Your task to perform on an android device: read, delete, or share a saved page in the chrome app Image 0: 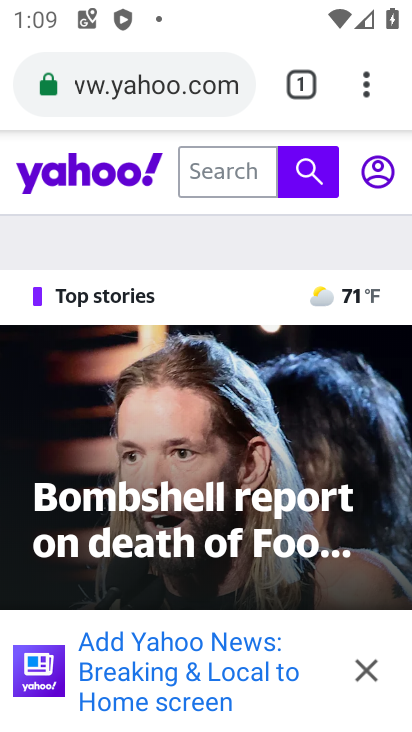
Step 0: click (380, 96)
Your task to perform on an android device: read, delete, or share a saved page in the chrome app Image 1: 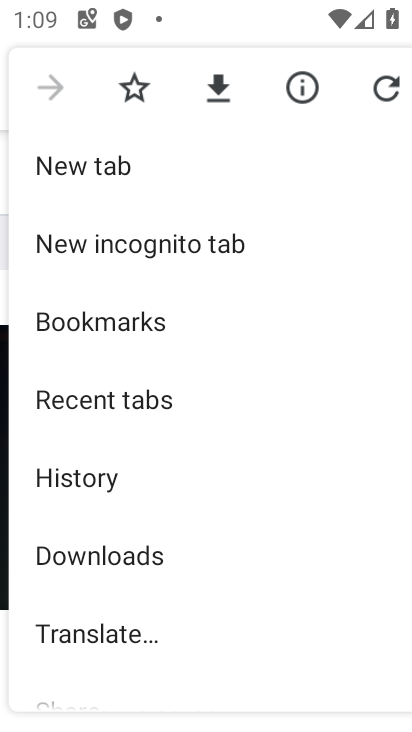
Step 1: click (141, 556)
Your task to perform on an android device: read, delete, or share a saved page in the chrome app Image 2: 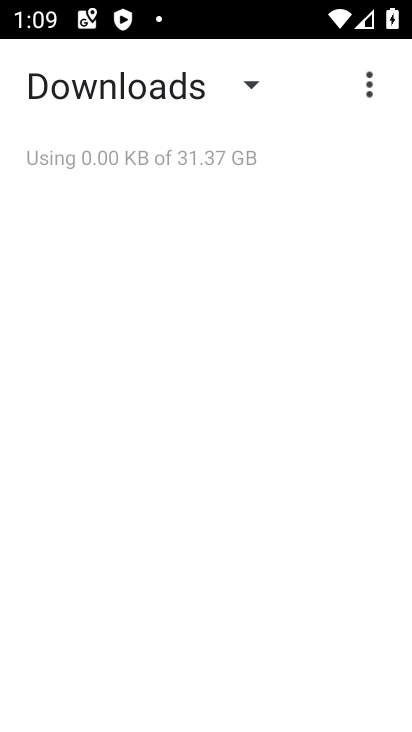
Step 2: task complete